Your task to perform on an android device: change the clock display to analog Image 0: 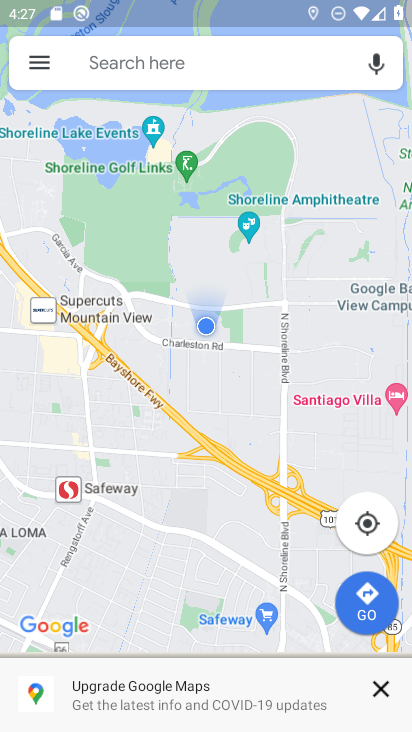
Step 0: press home button
Your task to perform on an android device: change the clock display to analog Image 1: 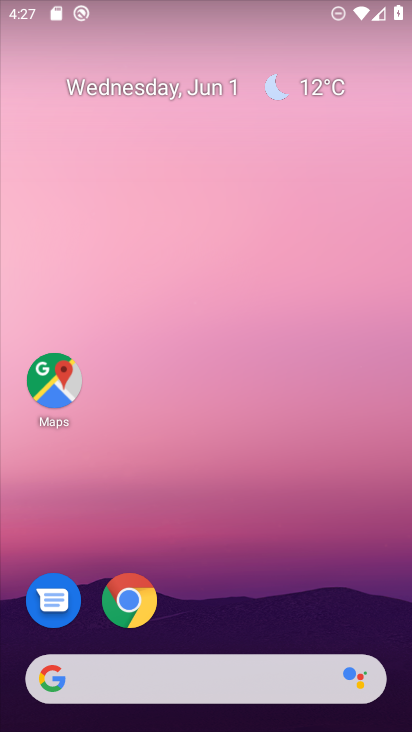
Step 1: drag from (380, 629) to (320, 121)
Your task to perform on an android device: change the clock display to analog Image 2: 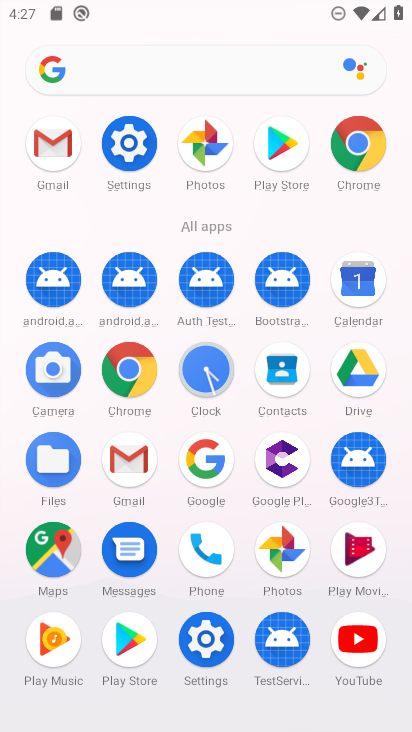
Step 2: click (209, 369)
Your task to perform on an android device: change the clock display to analog Image 3: 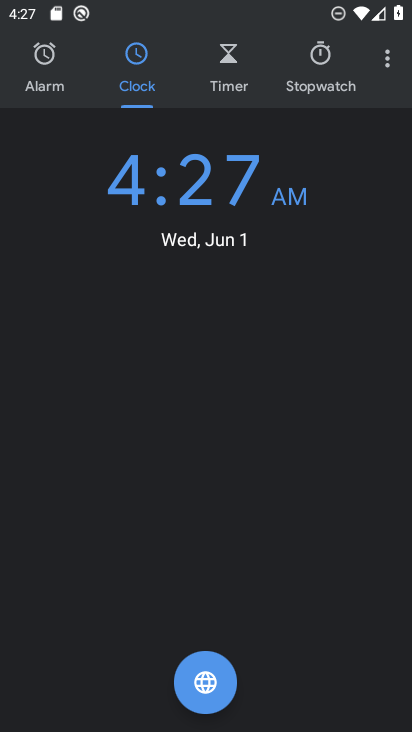
Step 3: click (381, 62)
Your task to perform on an android device: change the clock display to analog Image 4: 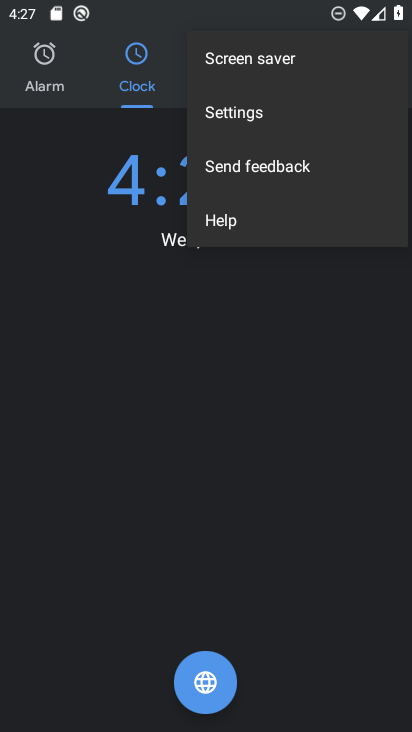
Step 4: click (235, 115)
Your task to perform on an android device: change the clock display to analog Image 5: 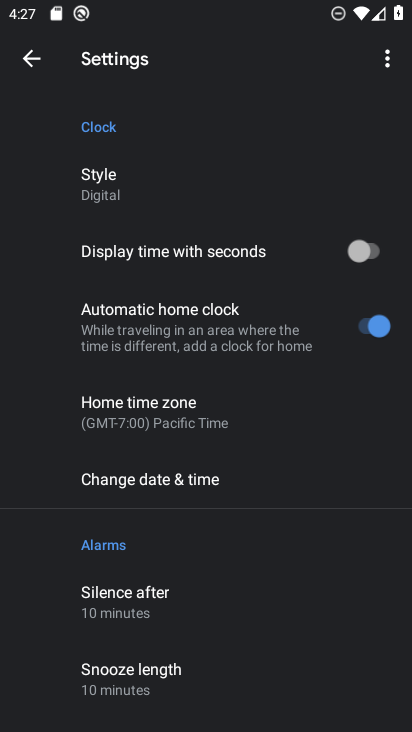
Step 5: click (108, 186)
Your task to perform on an android device: change the clock display to analog Image 6: 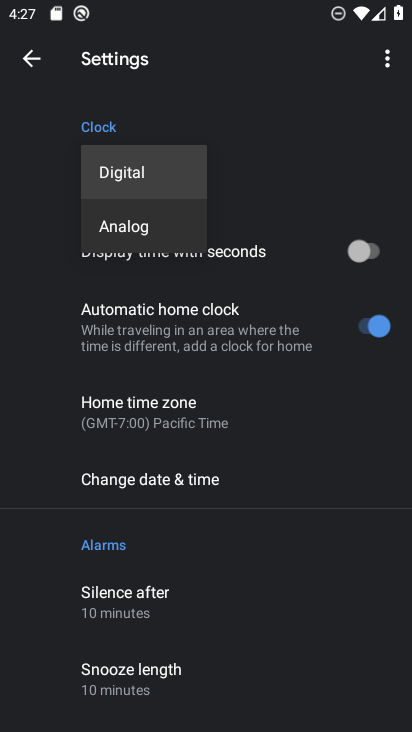
Step 6: click (124, 227)
Your task to perform on an android device: change the clock display to analog Image 7: 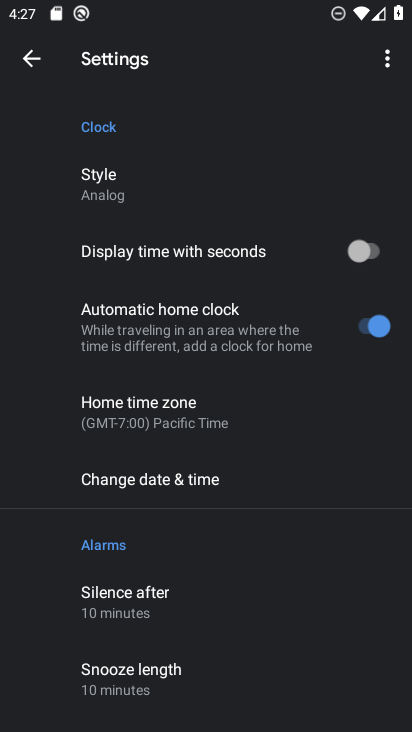
Step 7: task complete